Your task to perform on an android device: What is the capital of Argentina? Image 0: 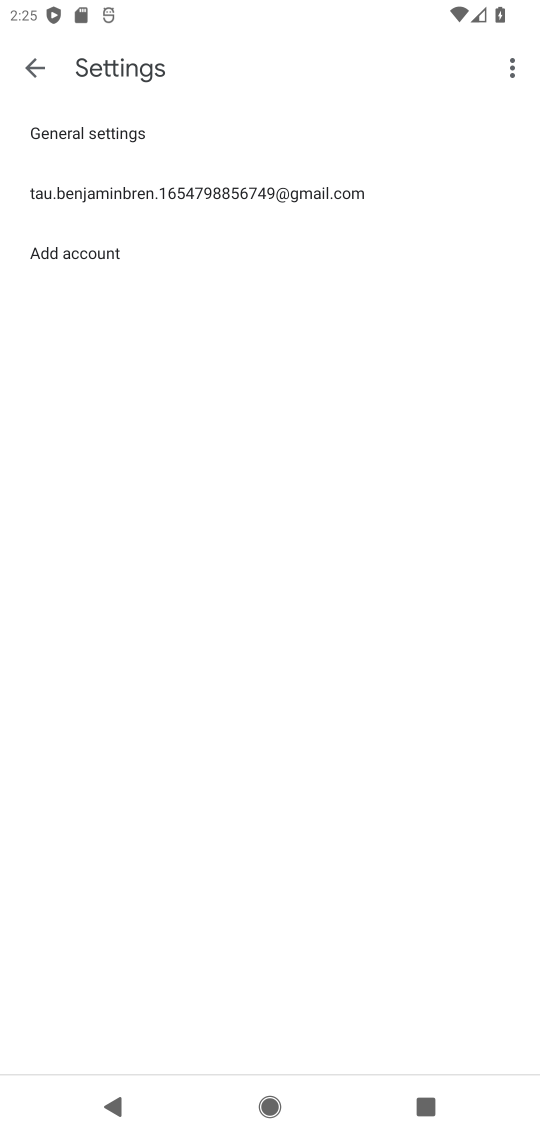
Step 0: press home button
Your task to perform on an android device: What is the capital of Argentina? Image 1: 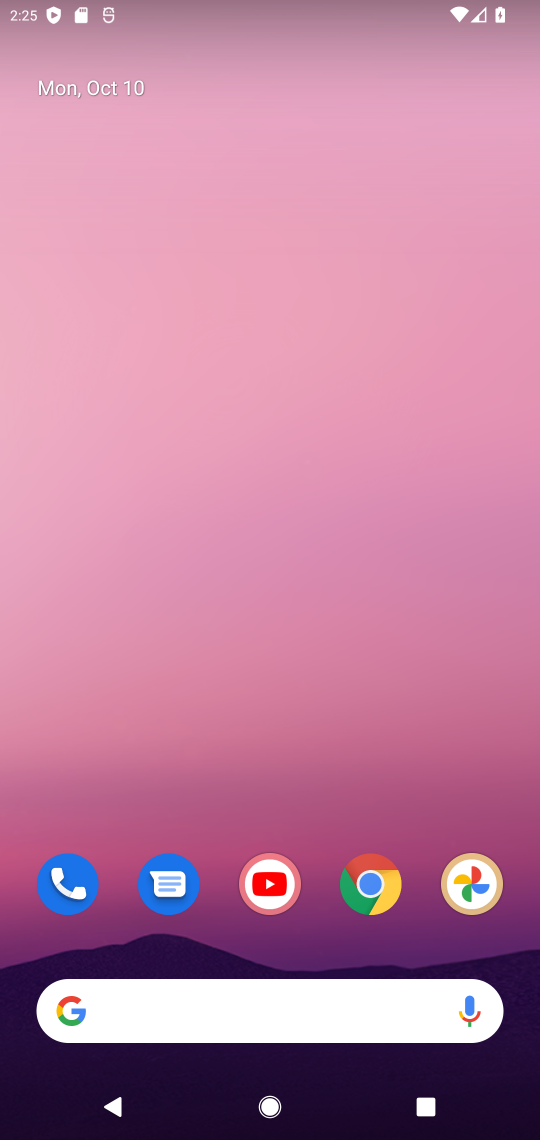
Step 1: click (271, 1009)
Your task to perform on an android device: What is the capital of Argentina? Image 2: 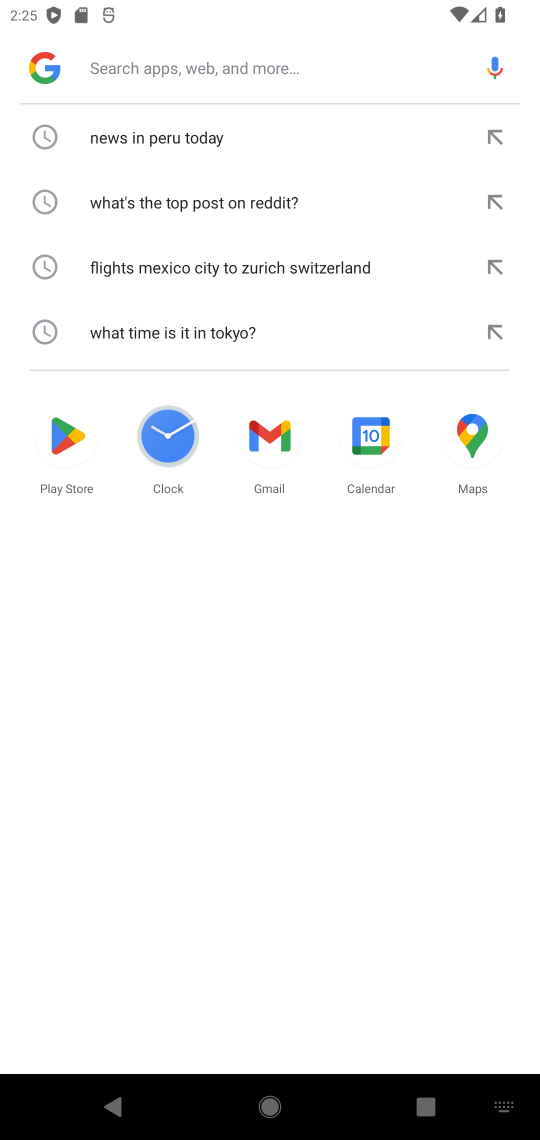
Step 2: type "What is the capital of Argentina"
Your task to perform on an android device: What is the capital of Argentina? Image 3: 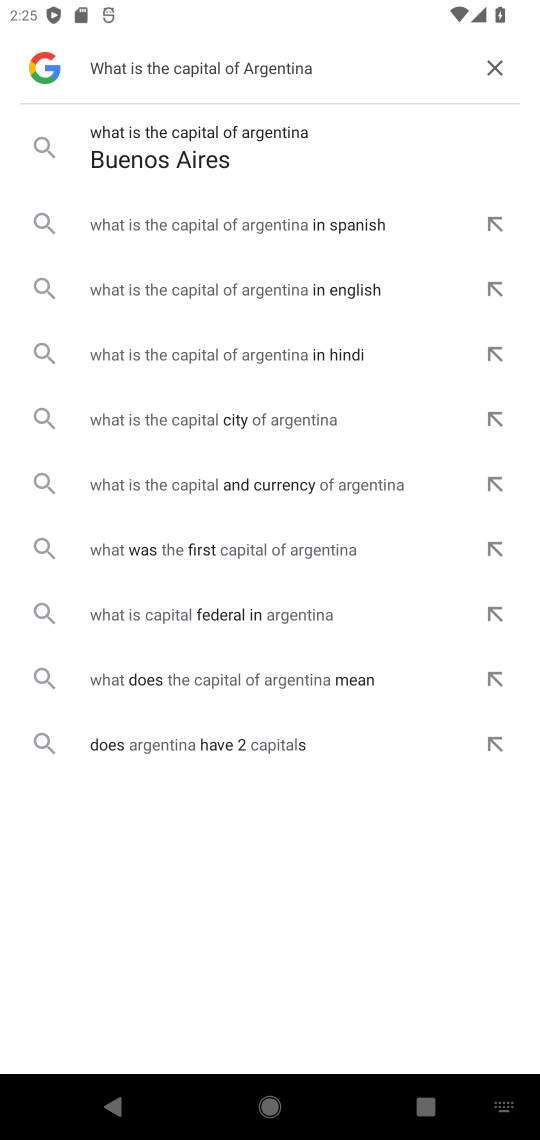
Step 3: click (224, 134)
Your task to perform on an android device: What is the capital of Argentina? Image 4: 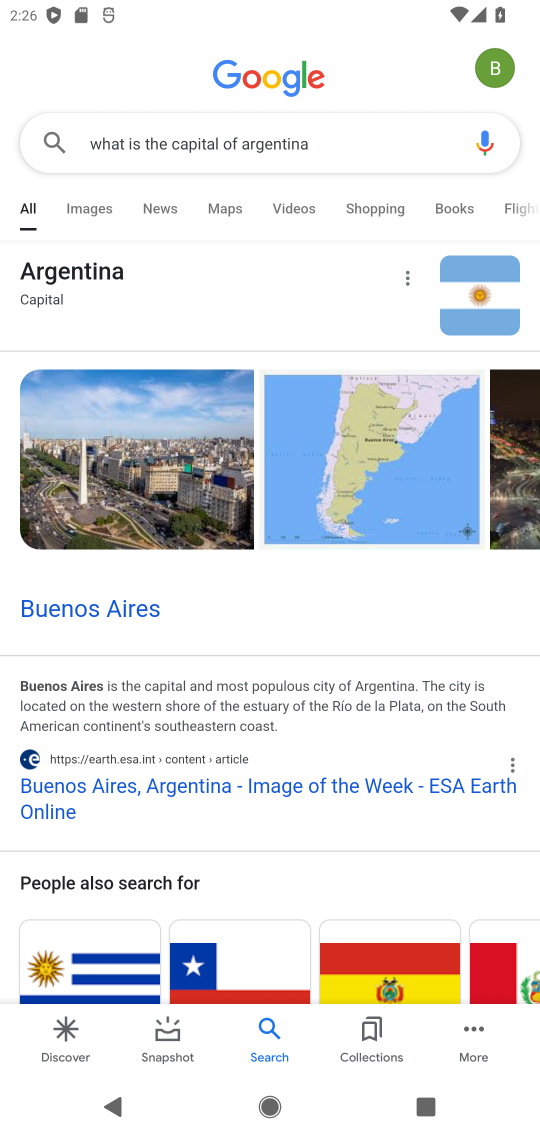
Step 4: task complete